Your task to perform on an android device: turn on notifications settings in the gmail app Image 0: 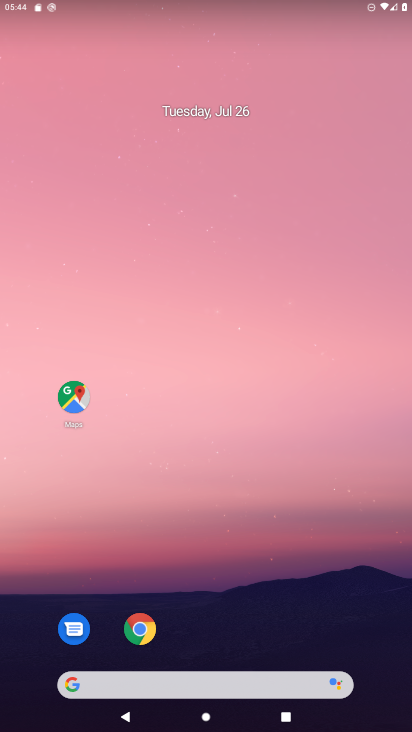
Step 0: drag from (182, 415) to (179, 55)
Your task to perform on an android device: turn on notifications settings in the gmail app Image 1: 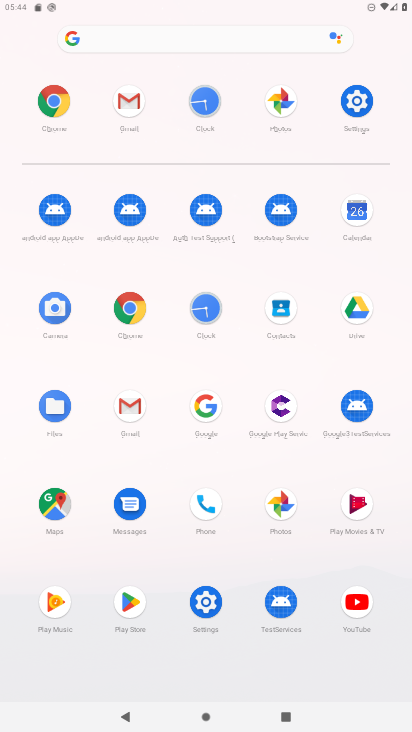
Step 1: click (129, 419)
Your task to perform on an android device: turn on notifications settings in the gmail app Image 2: 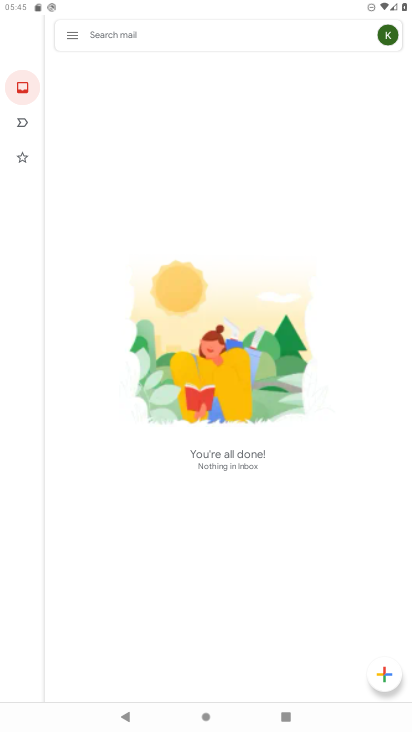
Step 2: click (68, 39)
Your task to perform on an android device: turn on notifications settings in the gmail app Image 3: 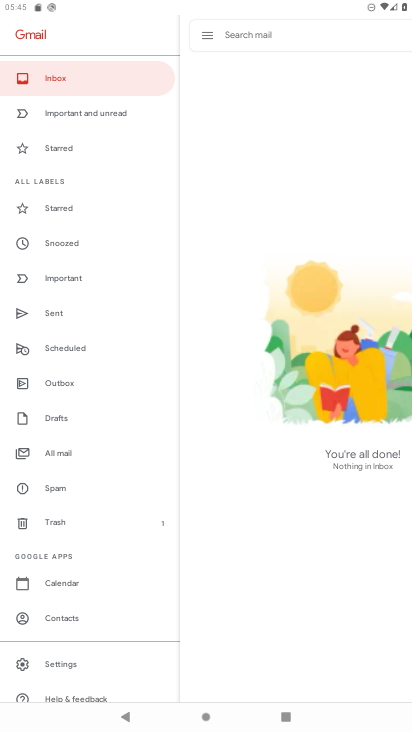
Step 3: click (56, 662)
Your task to perform on an android device: turn on notifications settings in the gmail app Image 4: 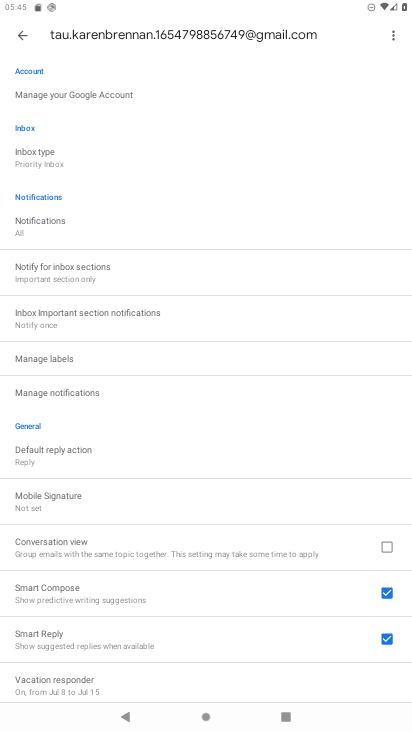
Step 4: click (43, 392)
Your task to perform on an android device: turn on notifications settings in the gmail app Image 5: 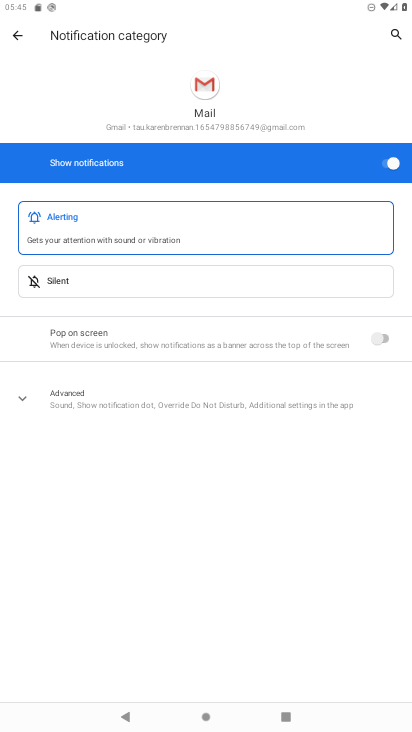
Step 5: task complete